Your task to perform on an android device: turn off wifi Image 0: 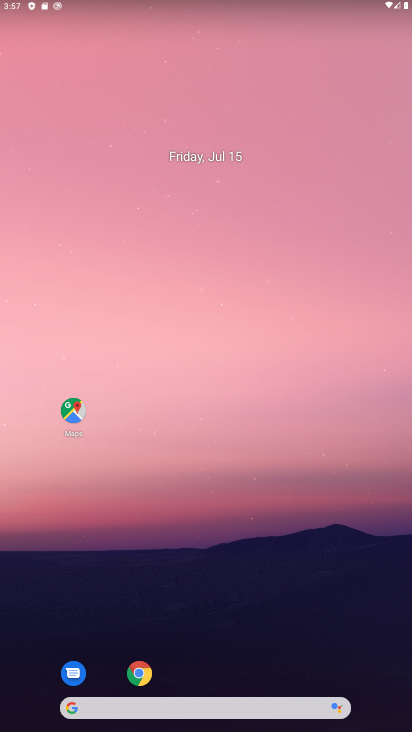
Step 0: drag from (287, 694) to (319, 280)
Your task to perform on an android device: turn off wifi Image 1: 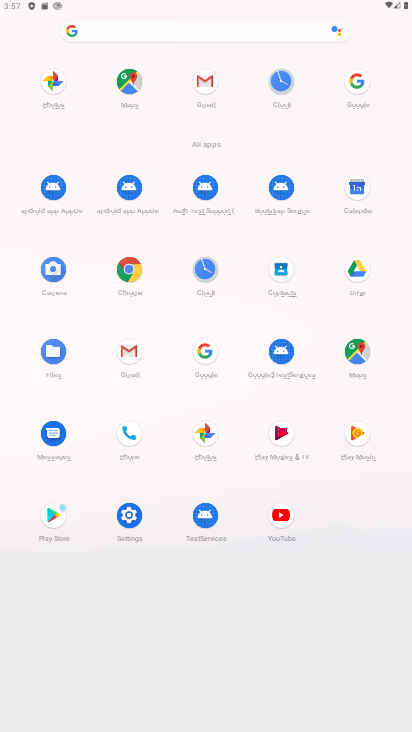
Step 1: click (115, 522)
Your task to perform on an android device: turn off wifi Image 2: 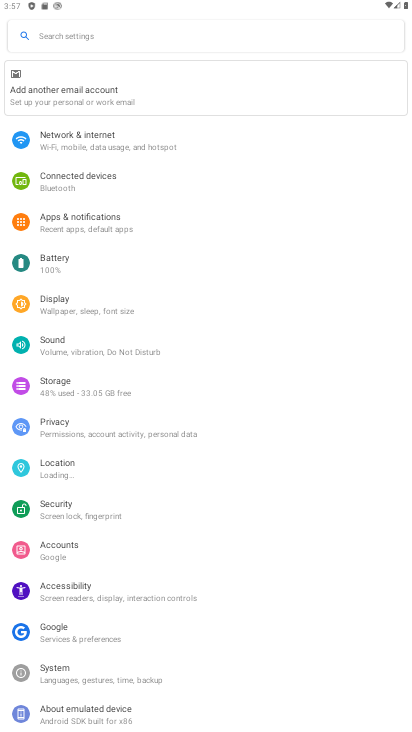
Step 2: click (120, 151)
Your task to perform on an android device: turn off wifi Image 3: 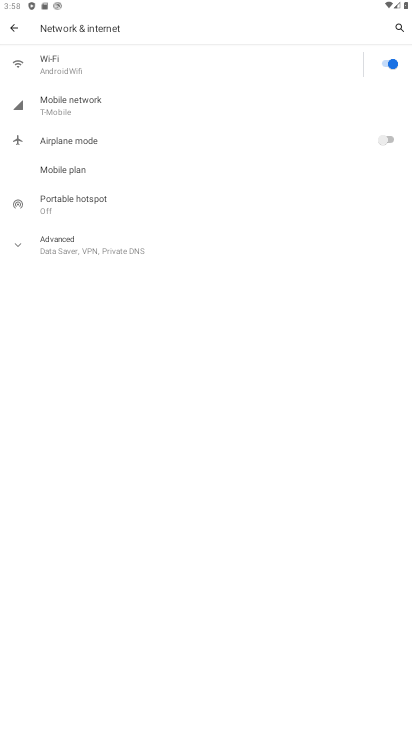
Step 3: click (389, 63)
Your task to perform on an android device: turn off wifi Image 4: 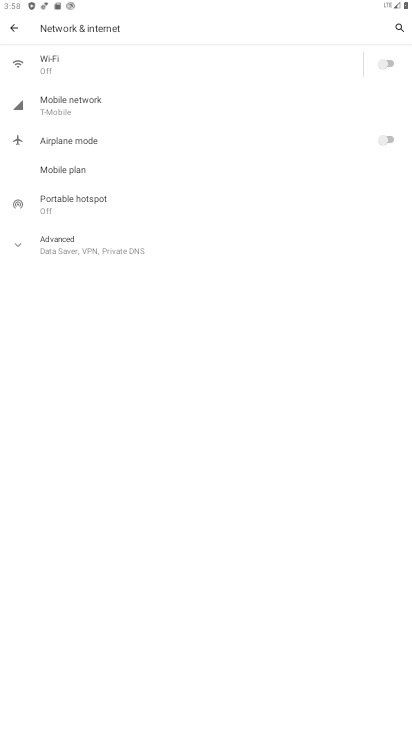
Step 4: task complete